Your task to perform on an android device: turn off data saver in the chrome app Image 0: 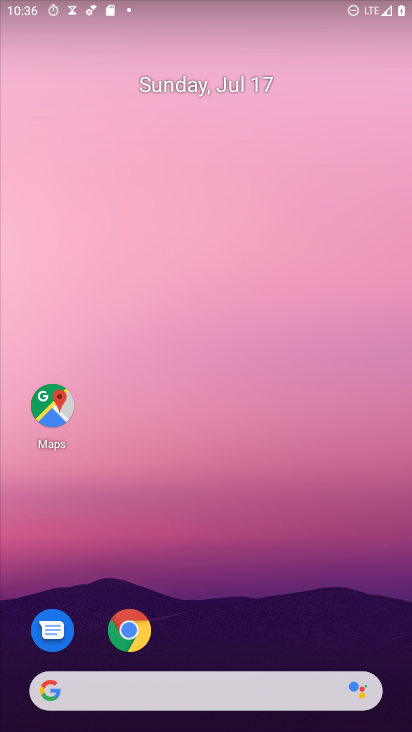
Step 0: drag from (107, 613) to (164, 13)
Your task to perform on an android device: turn off data saver in the chrome app Image 1: 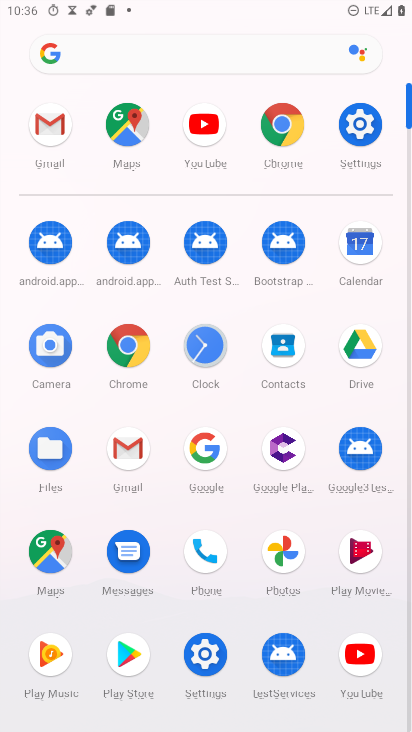
Step 1: click (140, 334)
Your task to perform on an android device: turn off data saver in the chrome app Image 2: 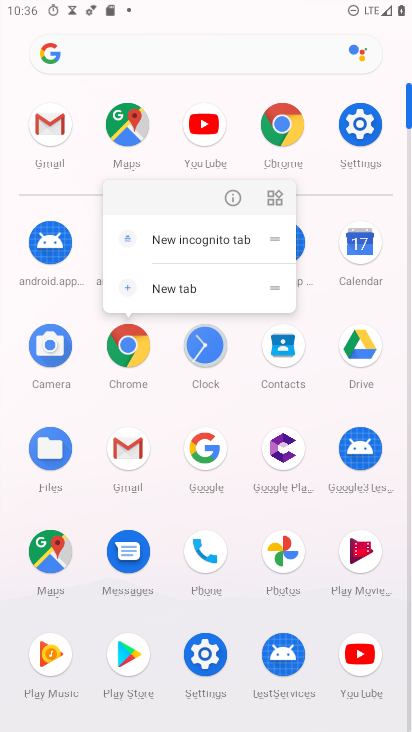
Step 2: click (123, 351)
Your task to perform on an android device: turn off data saver in the chrome app Image 3: 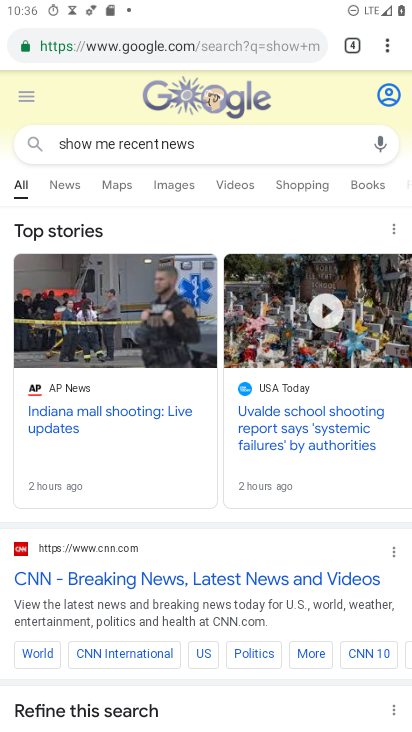
Step 3: click (384, 43)
Your task to perform on an android device: turn off data saver in the chrome app Image 4: 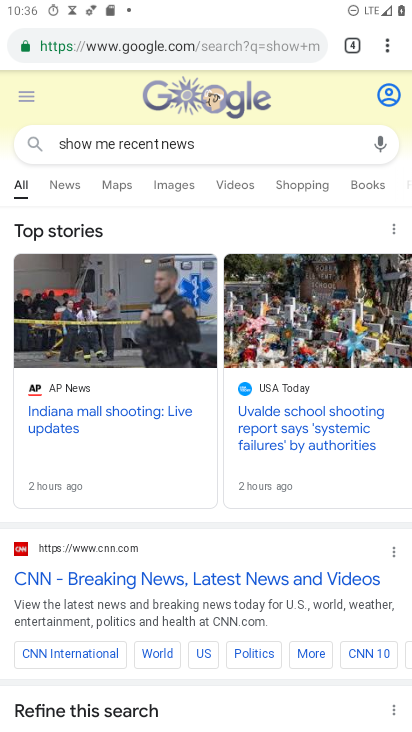
Step 4: drag from (388, 40) to (253, 506)
Your task to perform on an android device: turn off data saver in the chrome app Image 5: 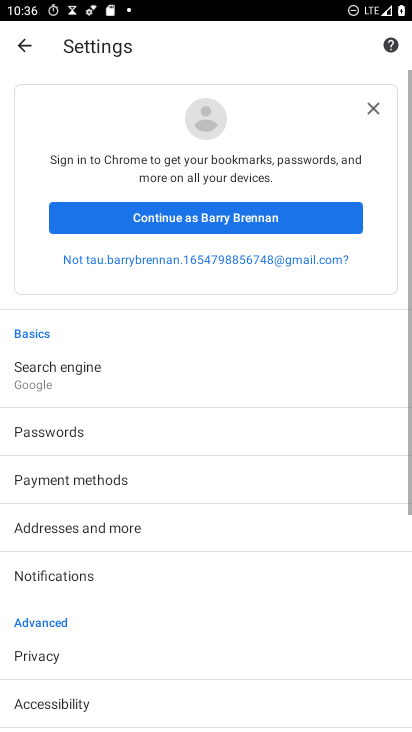
Step 5: drag from (150, 630) to (187, 150)
Your task to perform on an android device: turn off data saver in the chrome app Image 6: 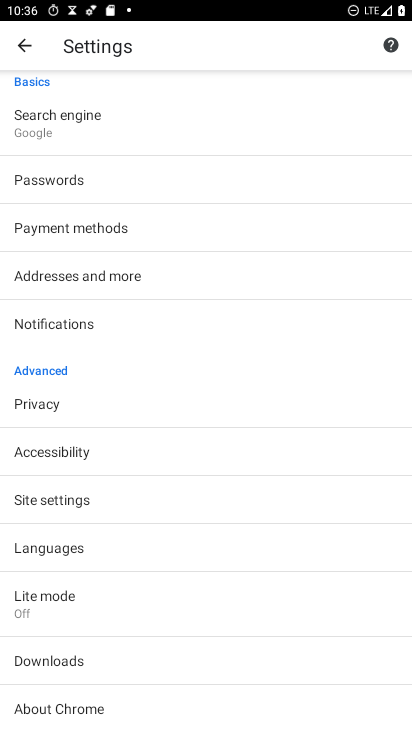
Step 6: click (92, 604)
Your task to perform on an android device: turn off data saver in the chrome app Image 7: 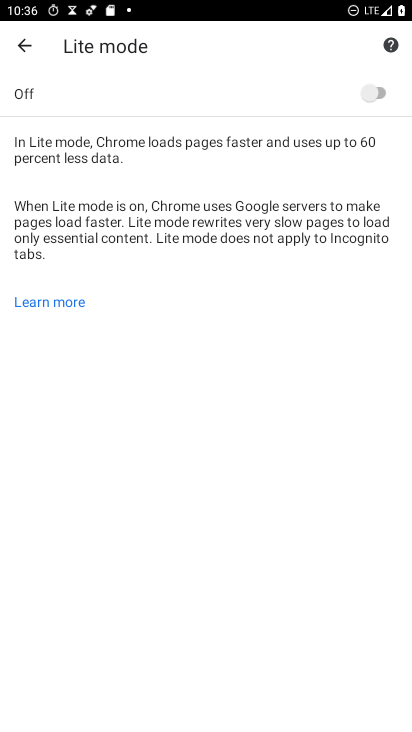
Step 7: task complete